Your task to perform on an android device: turn vacation reply on in the gmail app Image 0: 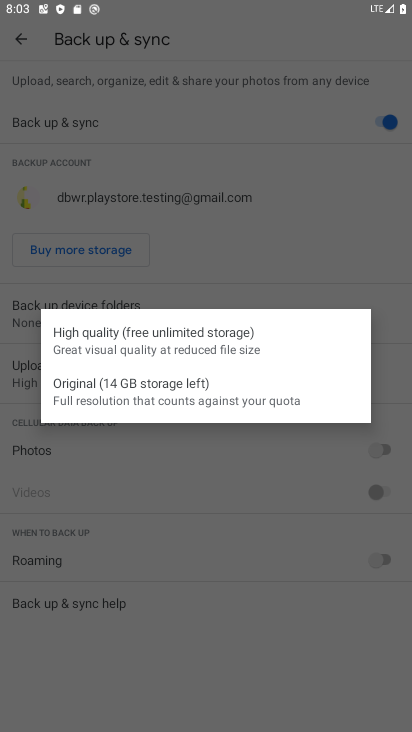
Step 0: press home button
Your task to perform on an android device: turn vacation reply on in the gmail app Image 1: 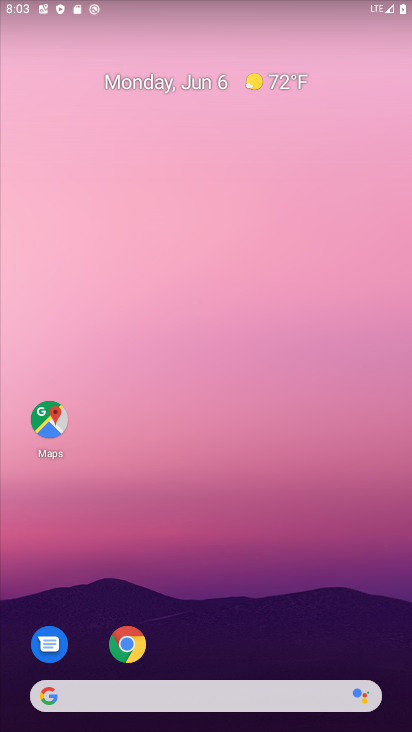
Step 1: drag from (181, 712) to (205, 325)
Your task to perform on an android device: turn vacation reply on in the gmail app Image 2: 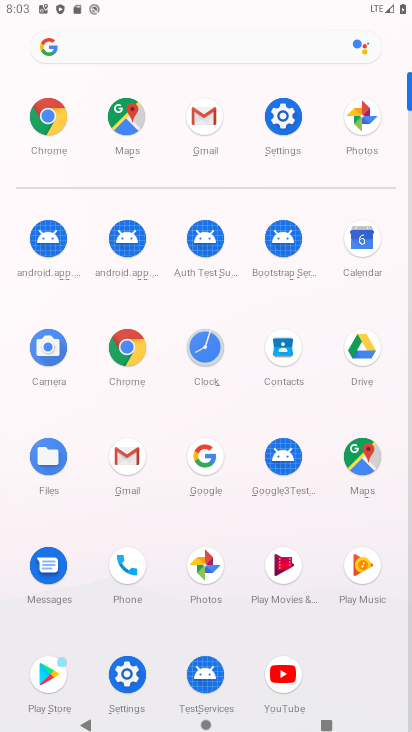
Step 2: click (208, 118)
Your task to perform on an android device: turn vacation reply on in the gmail app Image 3: 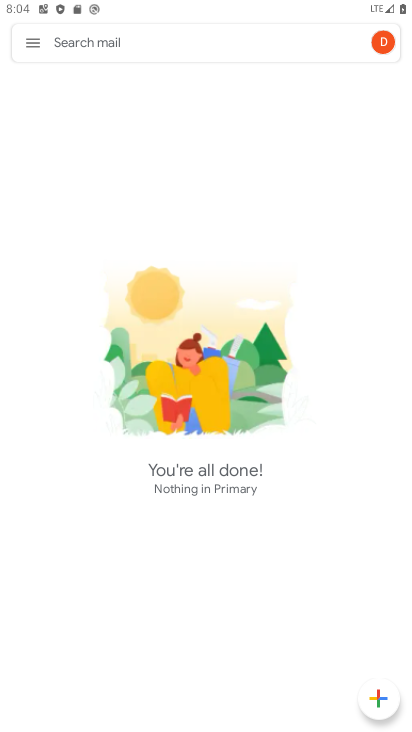
Step 3: task complete